Your task to perform on an android device: open app "Messages" (install if not already installed) and go to login screen Image 0: 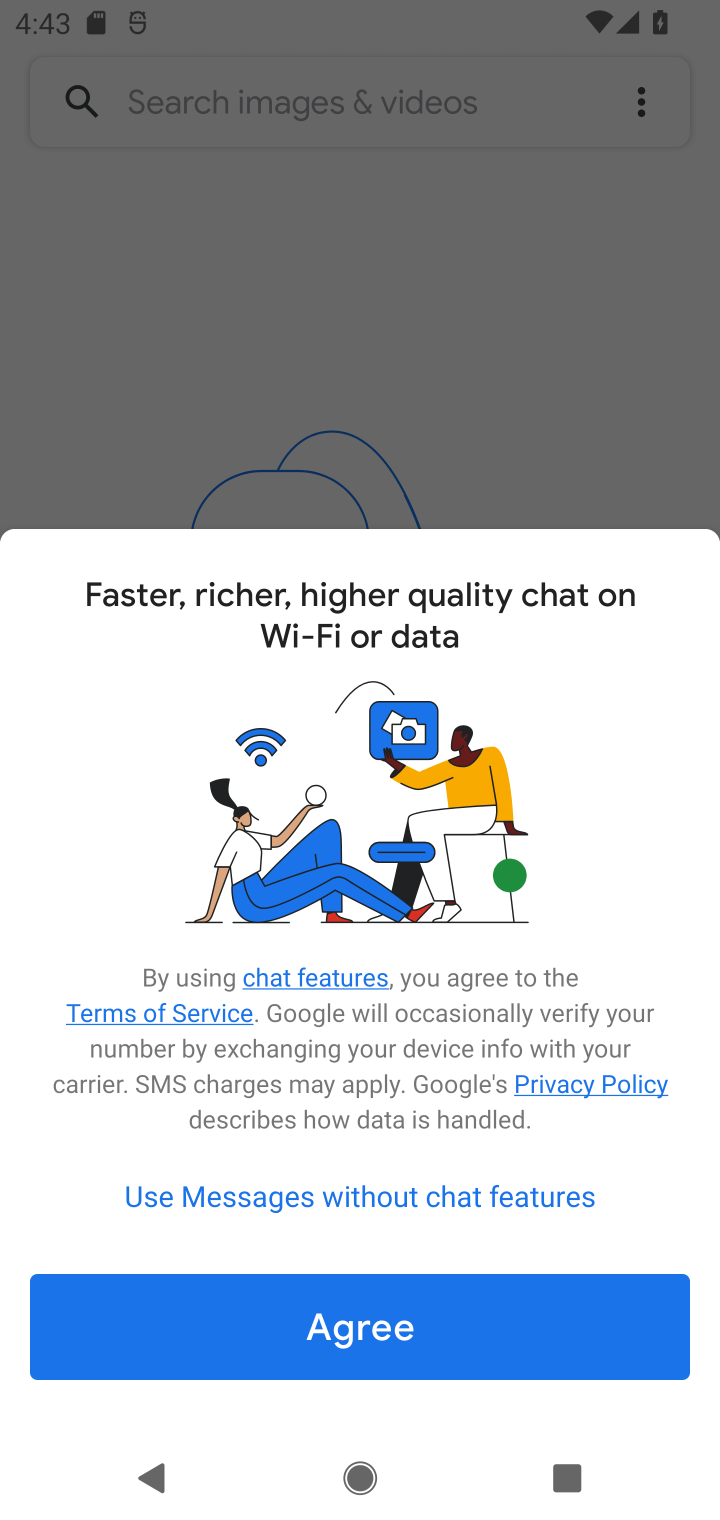
Step 0: press home button
Your task to perform on an android device: open app "Messages" (install if not already installed) and go to login screen Image 1: 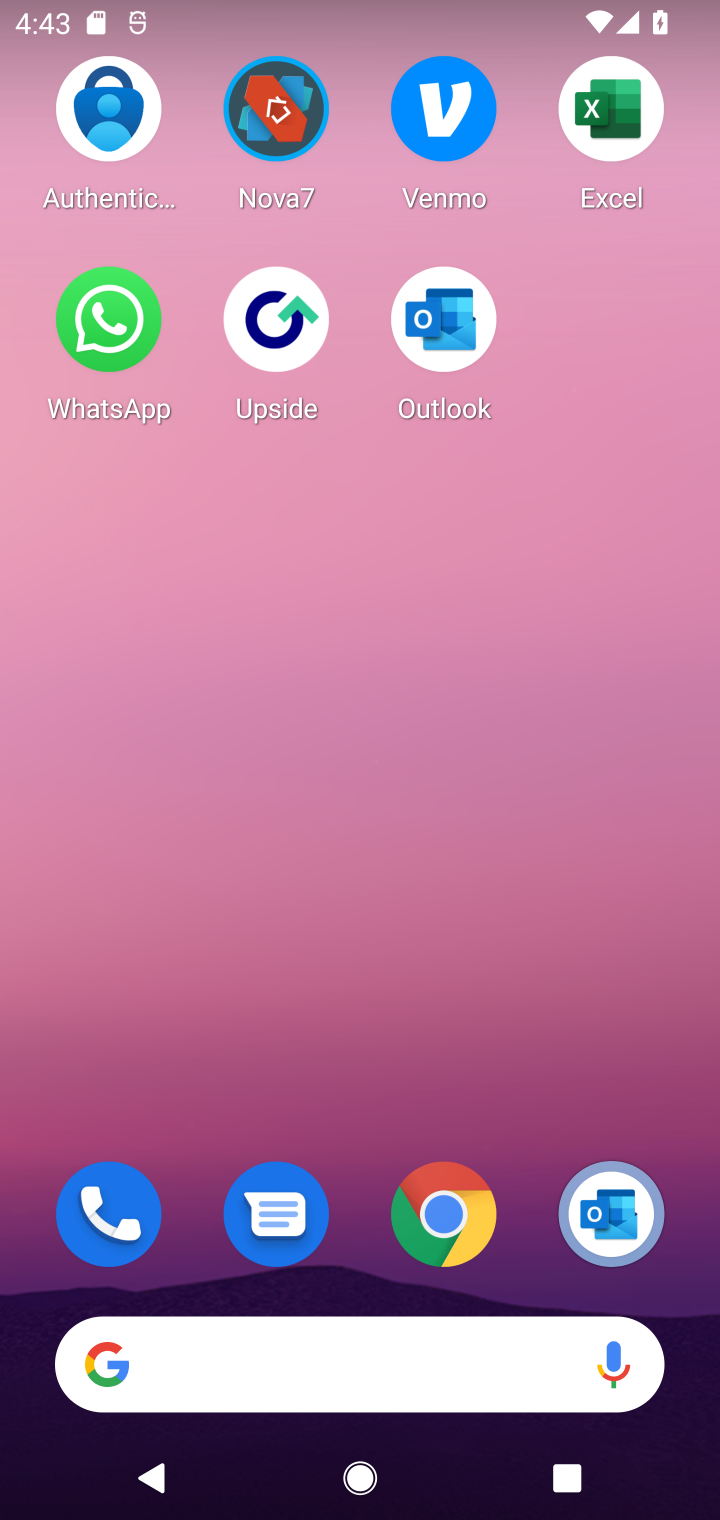
Step 1: drag from (392, 1190) to (278, 193)
Your task to perform on an android device: open app "Messages" (install if not already installed) and go to login screen Image 2: 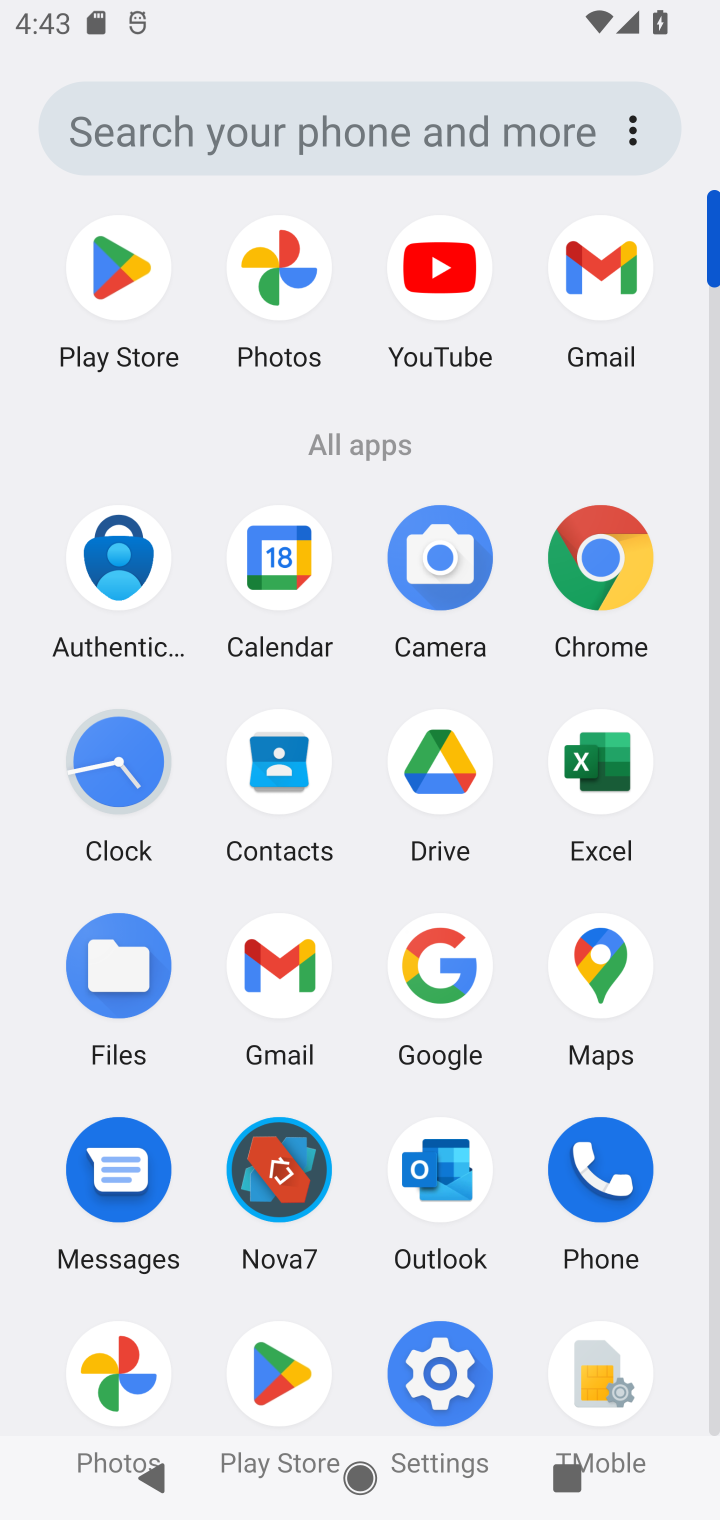
Step 2: click (277, 1366)
Your task to perform on an android device: open app "Messages" (install if not already installed) and go to login screen Image 3: 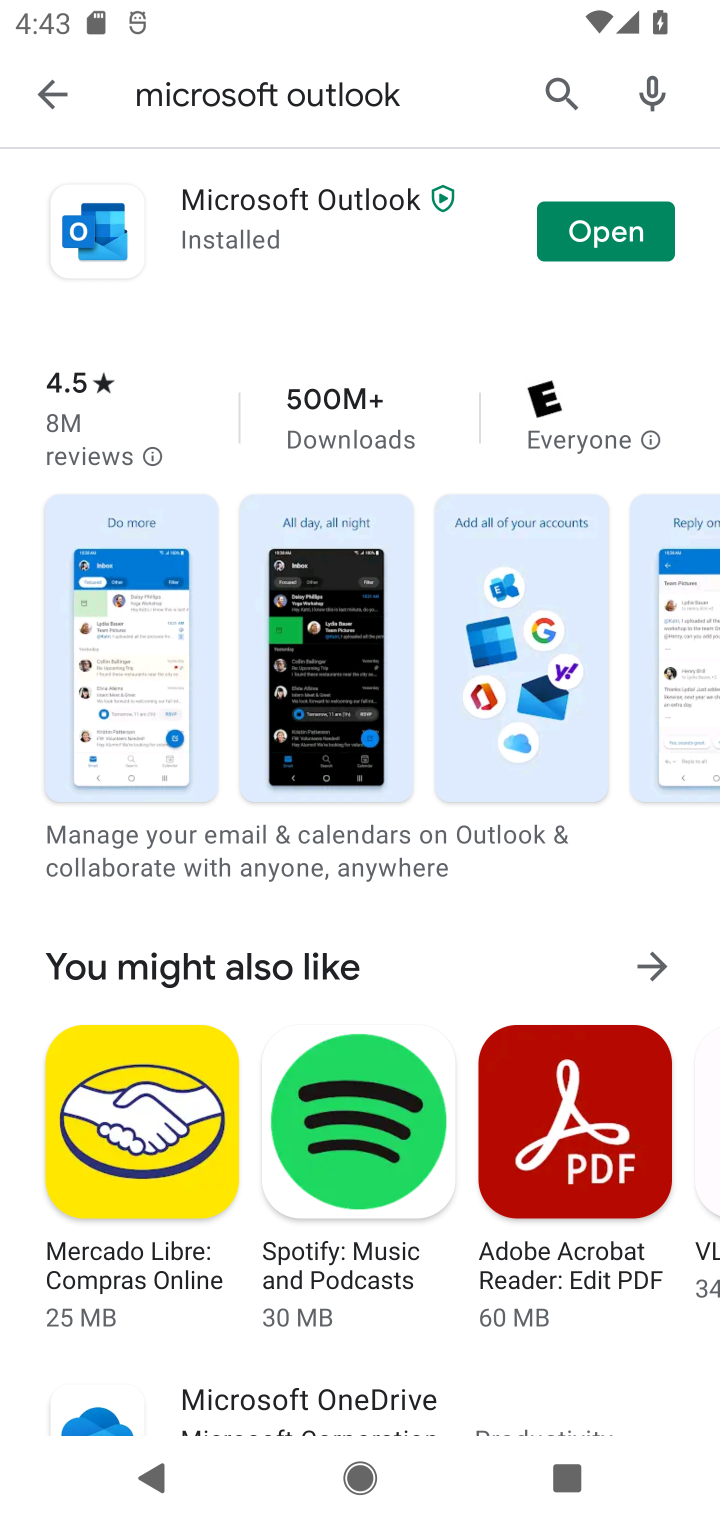
Step 3: click (324, 84)
Your task to perform on an android device: open app "Messages" (install if not already installed) and go to login screen Image 4: 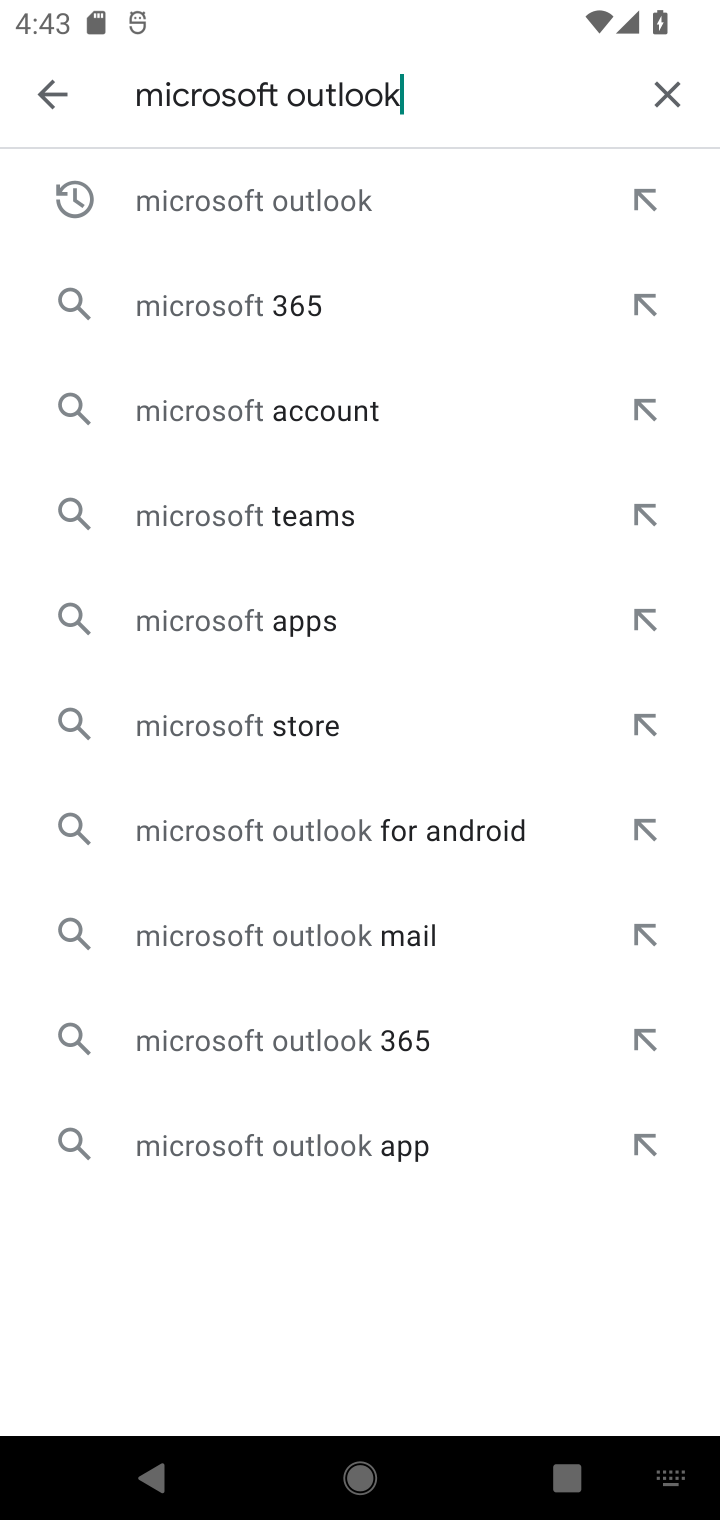
Step 4: click (672, 107)
Your task to perform on an android device: open app "Messages" (install if not already installed) and go to login screen Image 5: 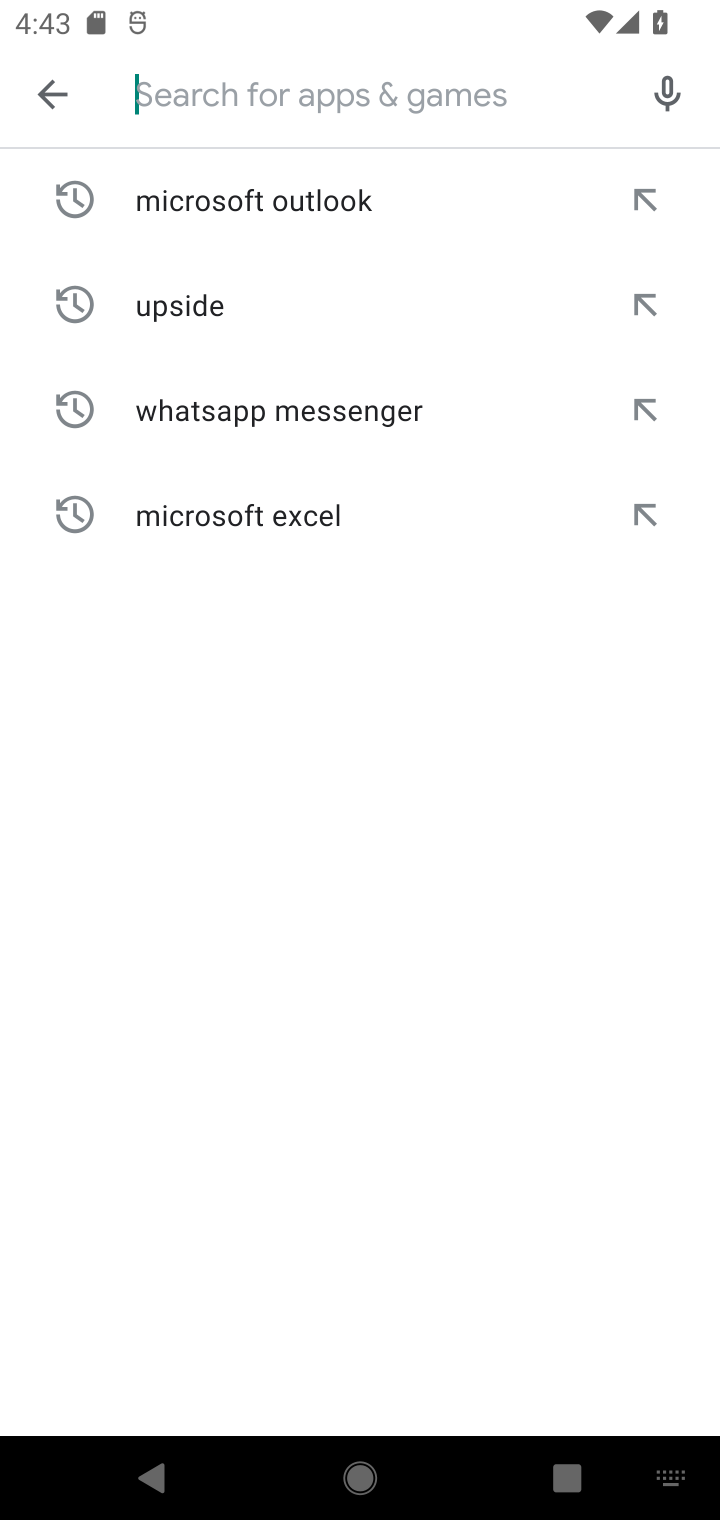
Step 5: type "Messages"
Your task to perform on an android device: open app "Messages" (install if not already installed) and go to login screen Image 6: 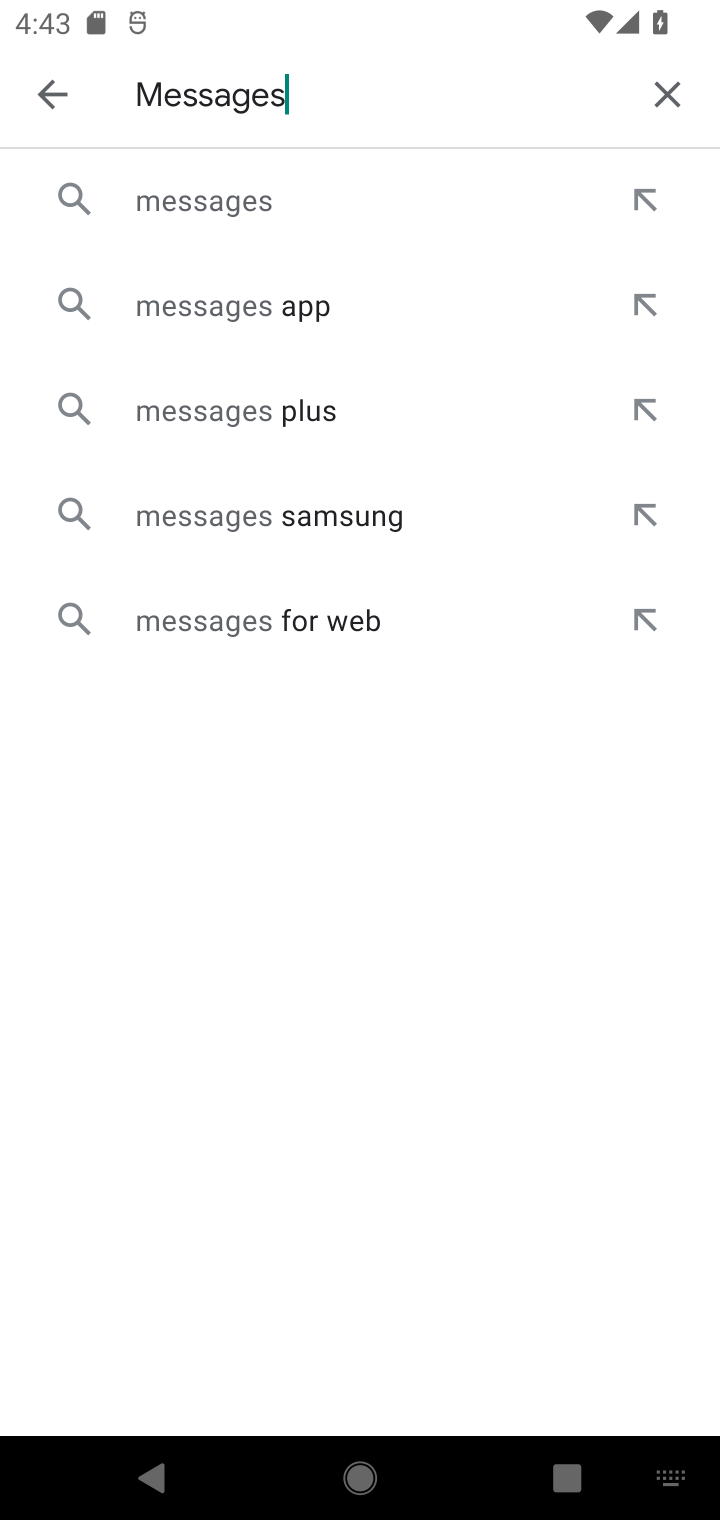
Step 6: click (256, 198)
Your task to perform on an android device: open app "Messages" (install if not already installed) and go to login screen Image 7: 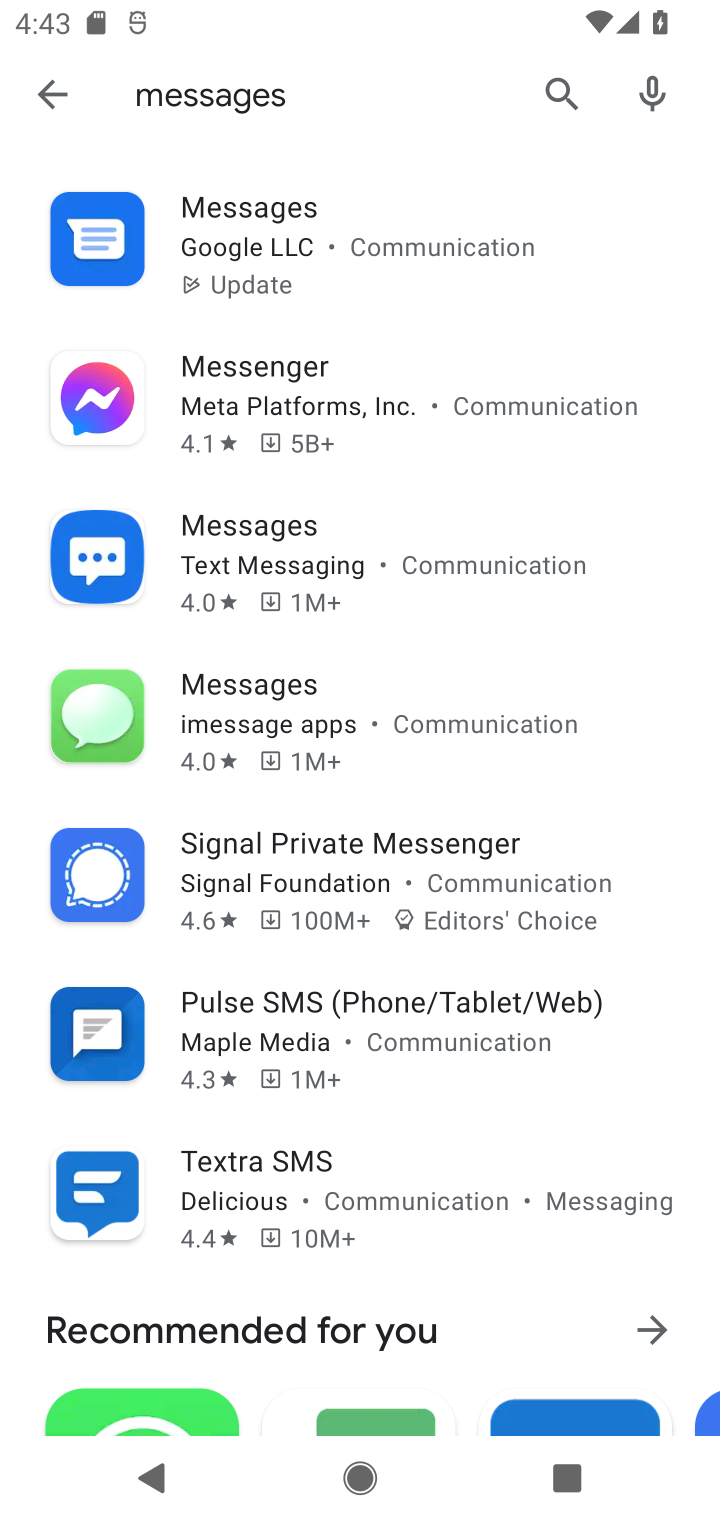
Step 7: click (298, 230)
Your task to perform on an android device: open app "Messages" (install if not already installed) and go to login screen Image 8: 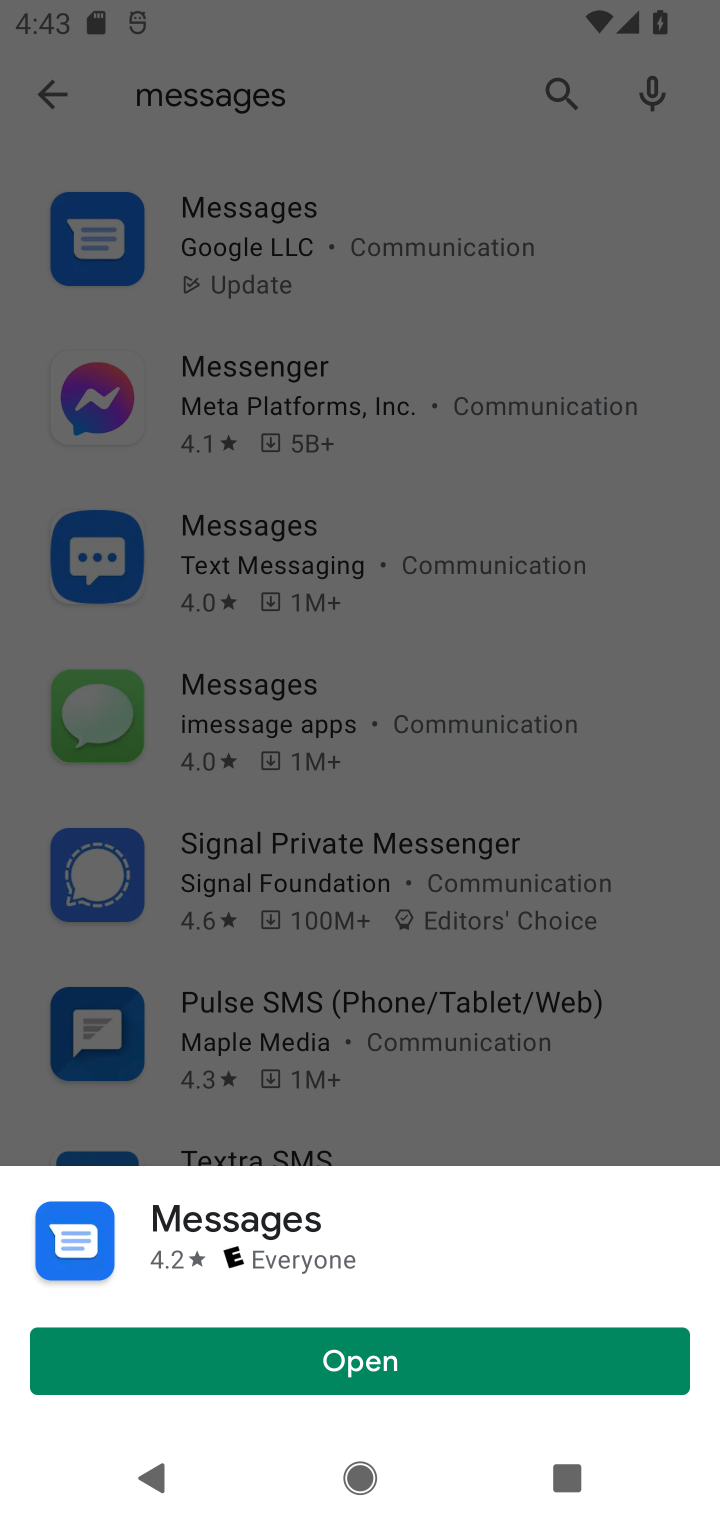
Step 8: click (268, 1364)
Your task to perform on an android device: open app "Messages" (install if not already installed) and go to login screen Image 9: 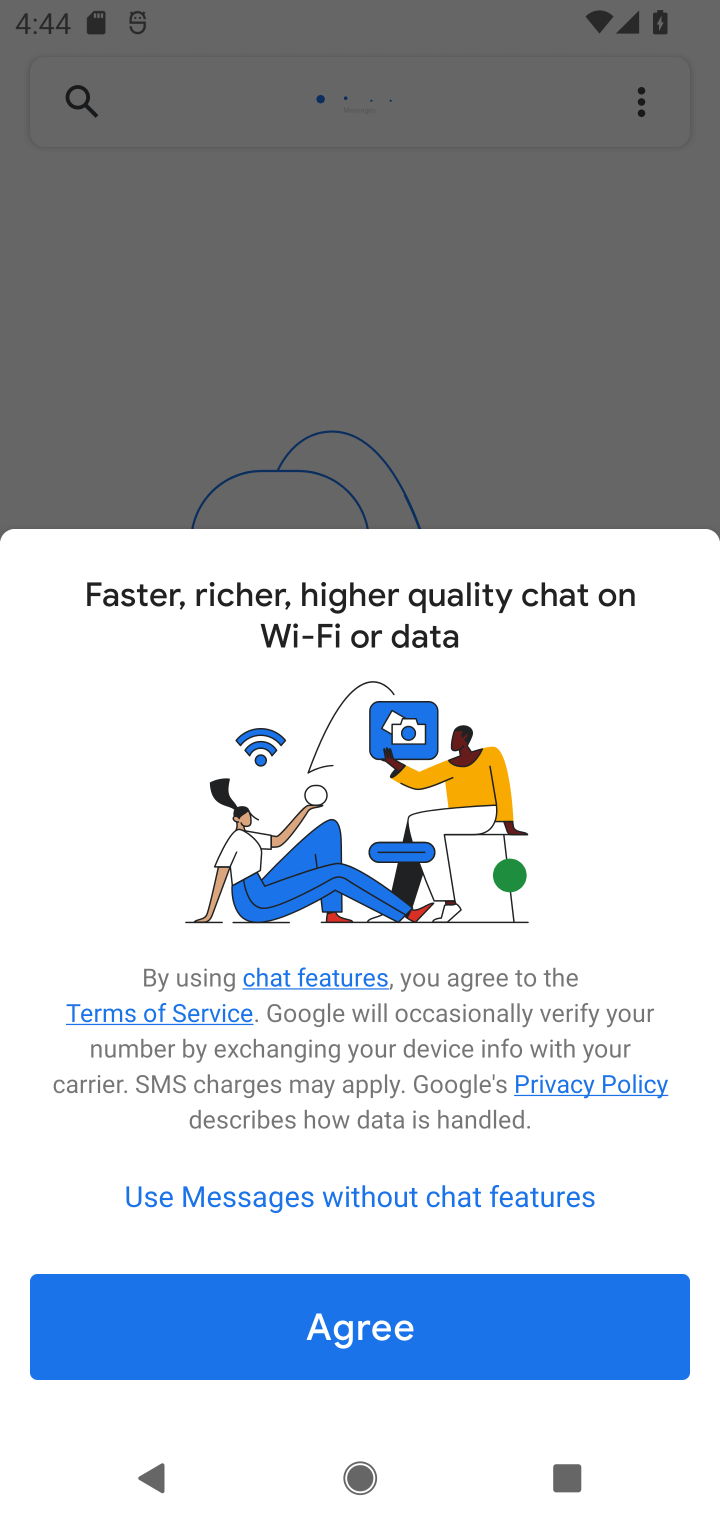
Step 9: click (321, 1325)
Your task to perform on an android device: open app "Messages" (install if not already installed) and go to login screen Image 10: 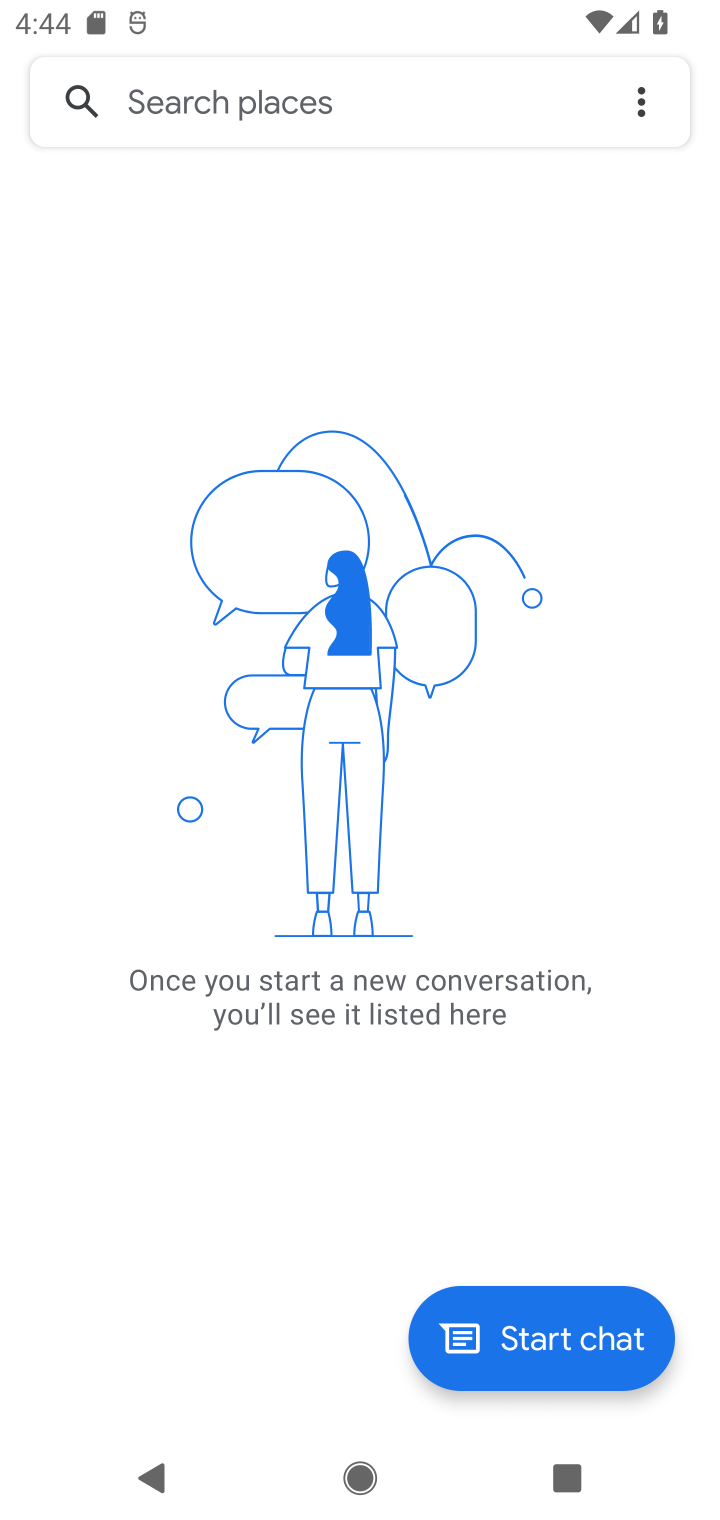
Step 10: task complete